Your task to perform on an android device: change alarm snooze length Image 0: 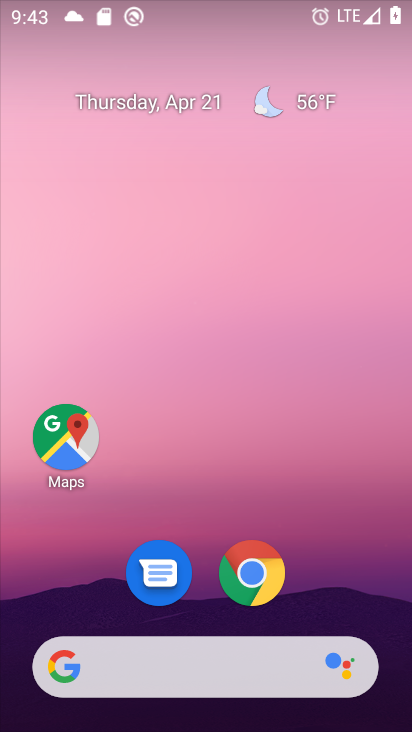
Step 0: drag from (239, 452) to (241, 25)
Your task to perform on an android device: change alarm snooze length Image 1: 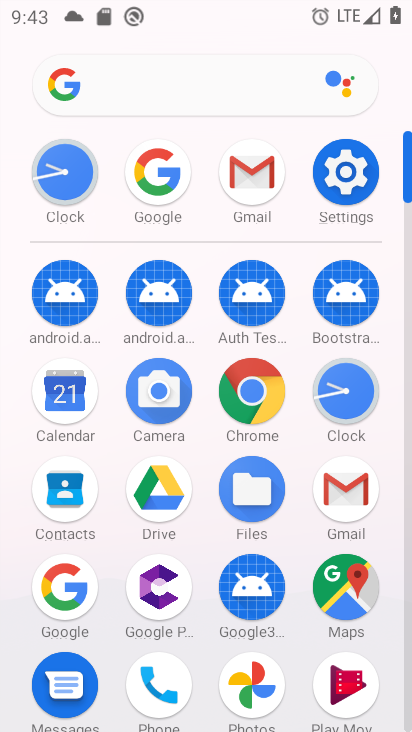
Step 1: click (64, 172)
Your task to perform on an android device: change alarm snooze length Image 2: 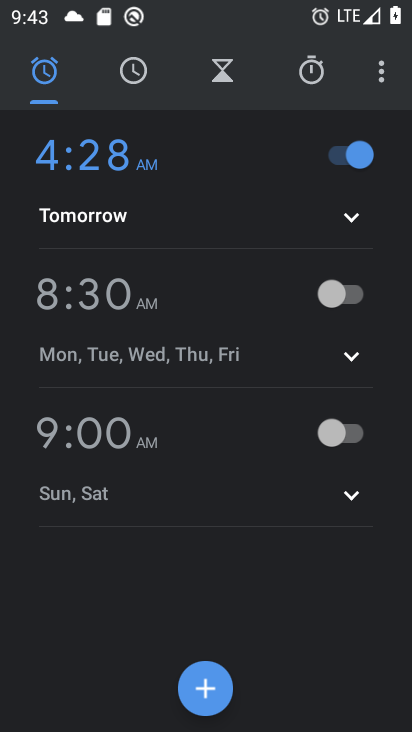
Step 2: click (380, 74)
Your task to perform on an android device: change alarm snooze length Image 3: 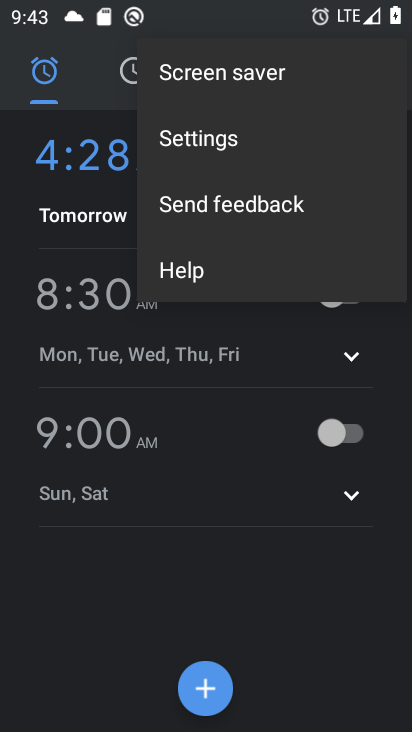
Step 3: click (243, 143)
Your task to perform on an android device: change alarm snooze length Image 4: 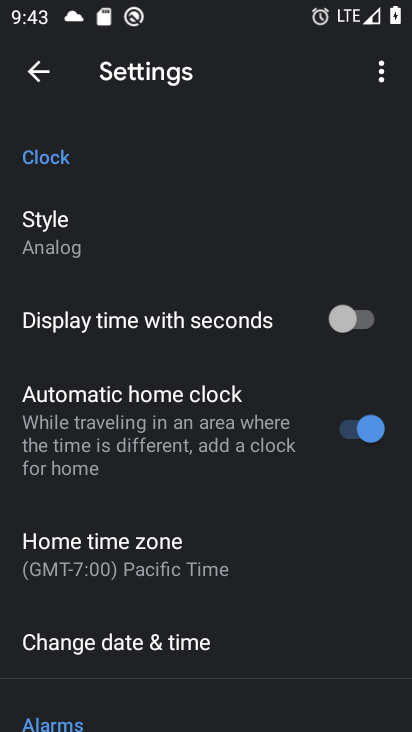
Step 4: drag from (255, 635) to (272, 478)
Your task to perform on an android device: change alarm snooze length Image 5: 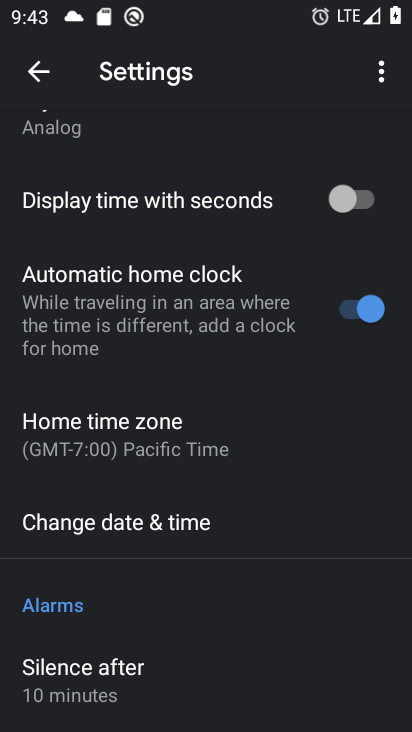
Step 5: drag from (229, 609) to (280, 493)
Your task to perform on an android device: change alarm snooze length Image 6: 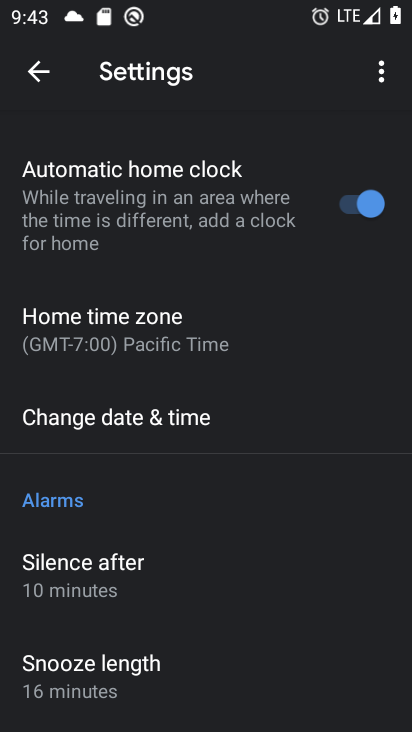
Step 6: drag from (251, 535) to (295, 457)
Your task to perform on an android device: change alarm snooze length Image 7: 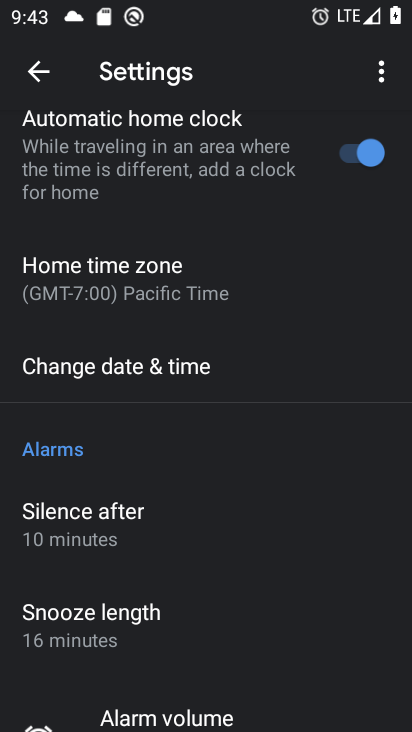
Step 7: click (121, 622)
Your task to perform on an android device: change alarm snooze length Image 8: 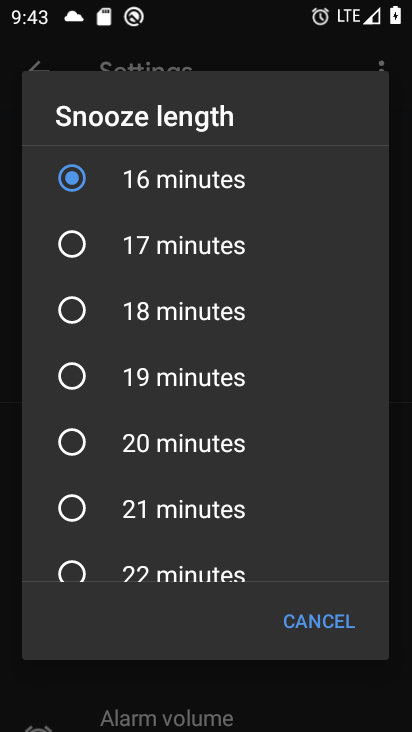
Step 8: drag from (267, 231) to (275, 483)
Your task to perform on an android device: change alarm snooze length Image 9: 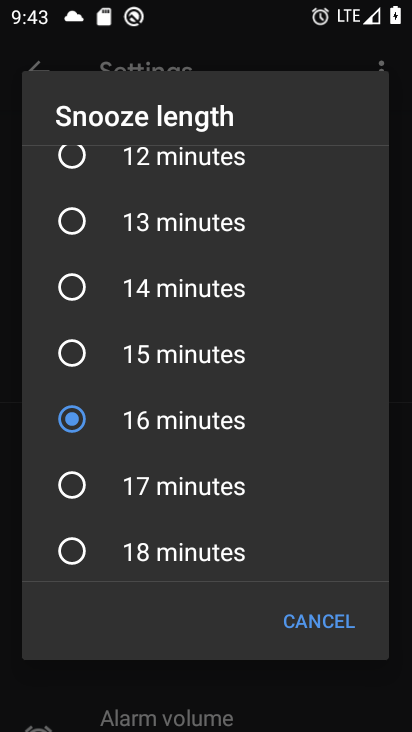
Step 9: click (194, 166)
Your task to perform on an android device: change alarm snooze length Image 10: 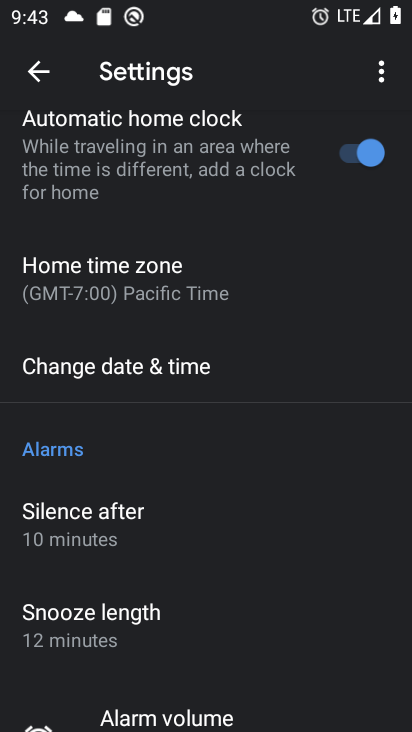
Step 10: task complete